Your task to perform on an android device: turn off translation in the chrome app Image 0: 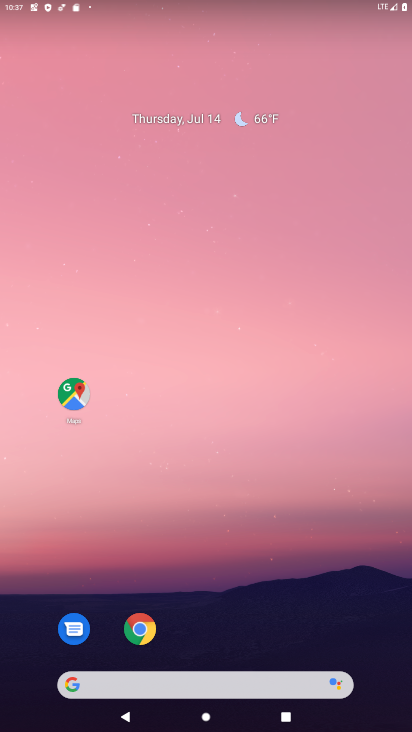
Step 0: click (148, 621)
Your task to perform on an android device: turn off translation in the chrome app Image 1: 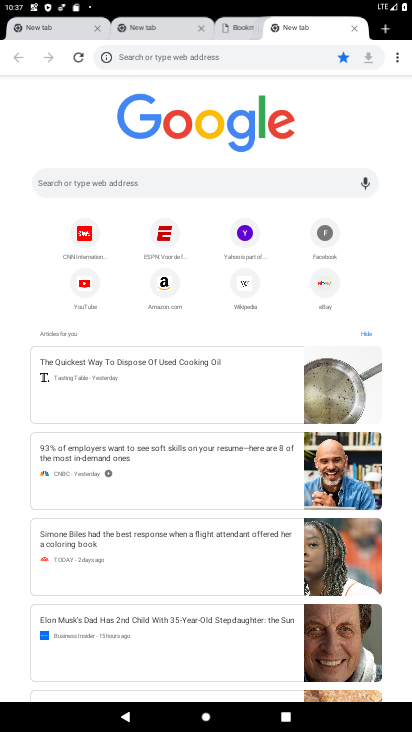
Step 1: drag from (399, 57) to (300, 252)
Your task to perform on an android device: turn off translation in the chrome app Image 2: 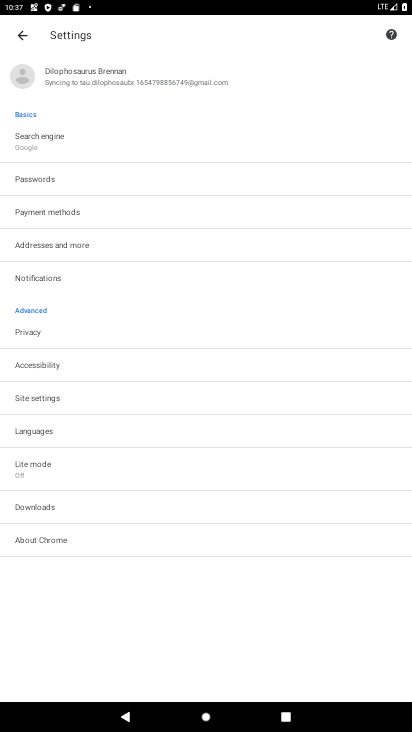
Step 2: click (26, 435)
Your task to perform on an android device: turn off translation in the chrome app Image 3: 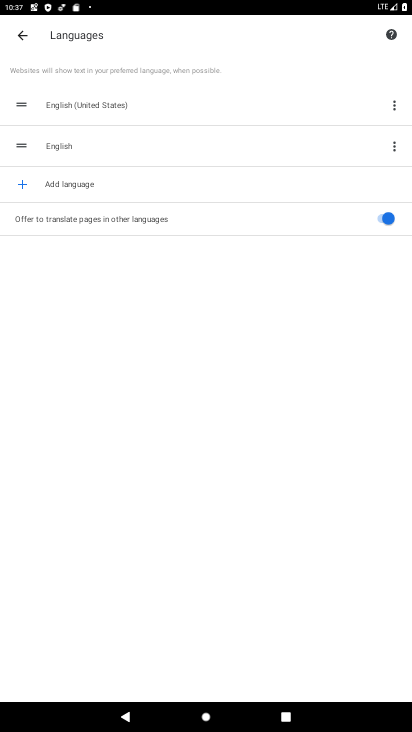
Step 3: click (391, 217)
Your task to perform on an android device: turn off translation in the chrome app Image 4: 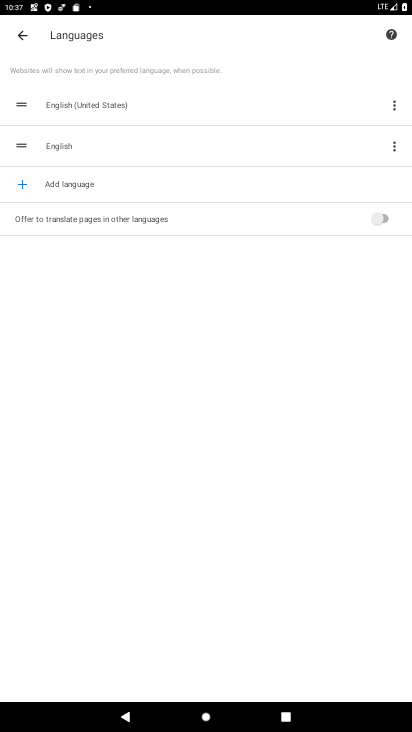
Step 4: task complete